Your task to perform on an android device: Open Google Maps and go to "Timeline" Image 0: 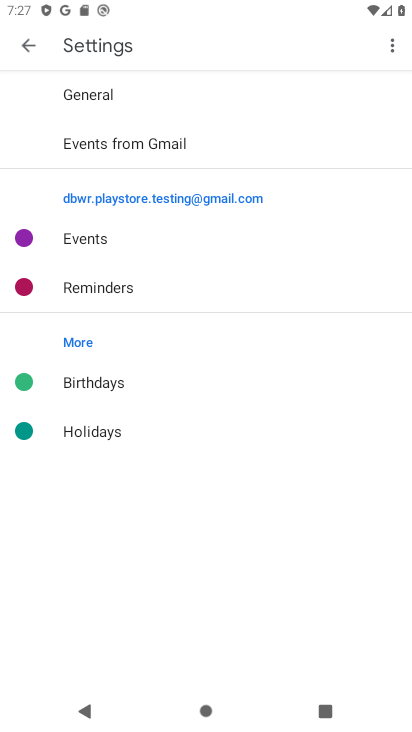
Step 0: press home button
Your task to perform on an android device: Open Google Maps and go to "Timeline" Image 1: 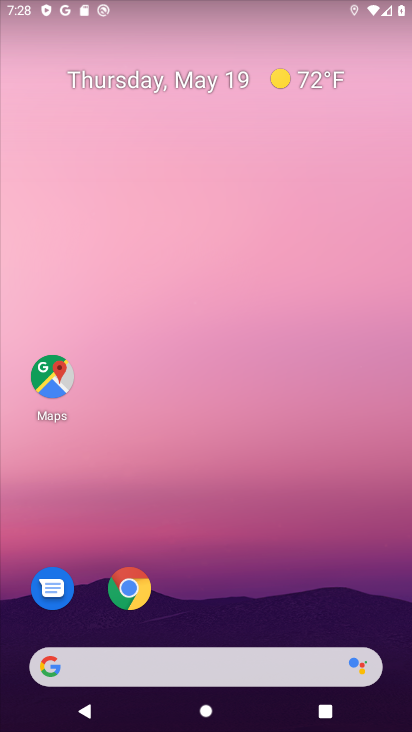
Step 1: drag from (325, 562) to (346, 54)
Your task to perform on an android device: Open Google Maps and go to "Timeline" Image 2: 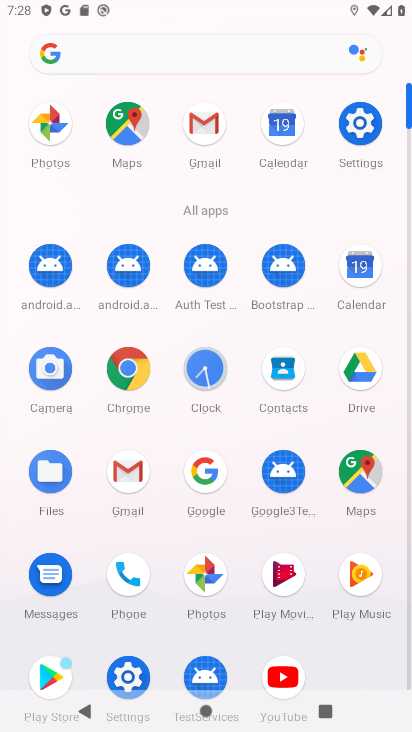
Step 2: click (351, 471)
Your task to perform on an android device: Open Google Maps and go to "Timeline" Image 3: 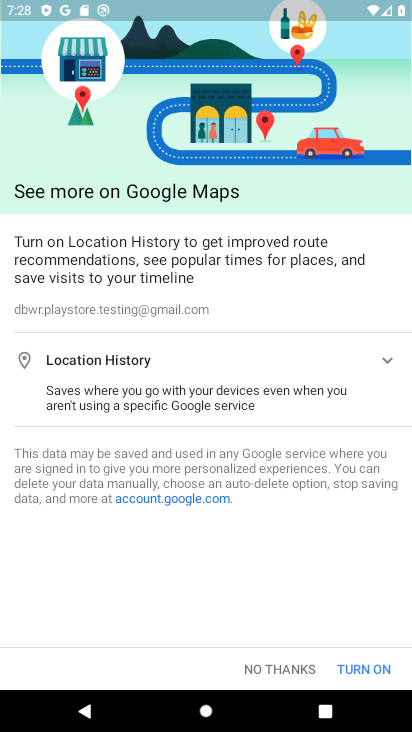
Step 3: click (360, 666)
Your task to perform on an android device: Open Google Maps and go to "Timeline" Image 4: 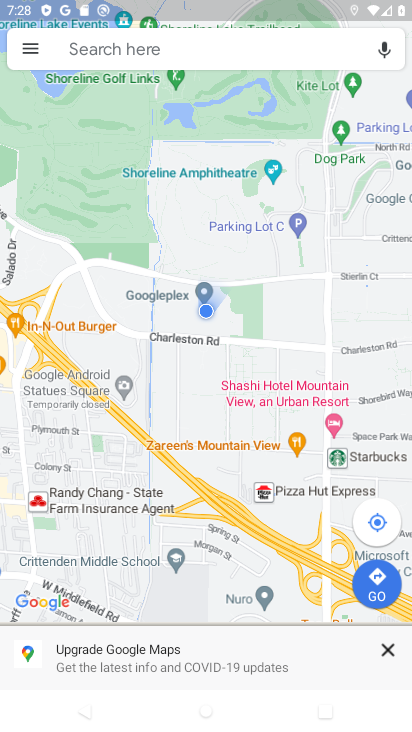
Step 4: click (23, 46)
Your task to perform on an android device: Open Google Maps and go to "Timeline" Image 5: 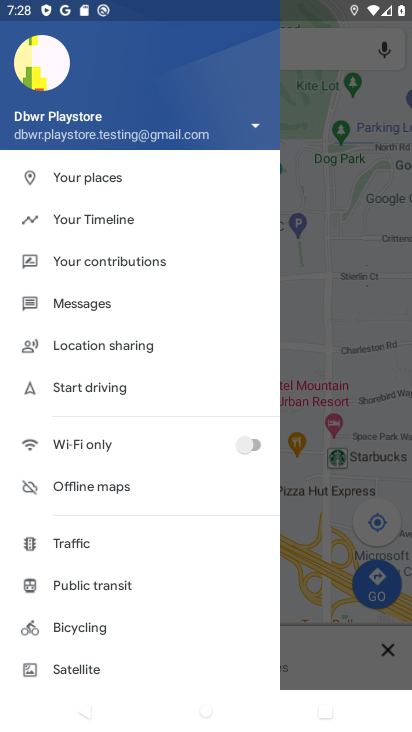
Step 5: click (96, 214)
Your task to perform on an android device: Open Google Maps and go to "Timeline" Image 6: 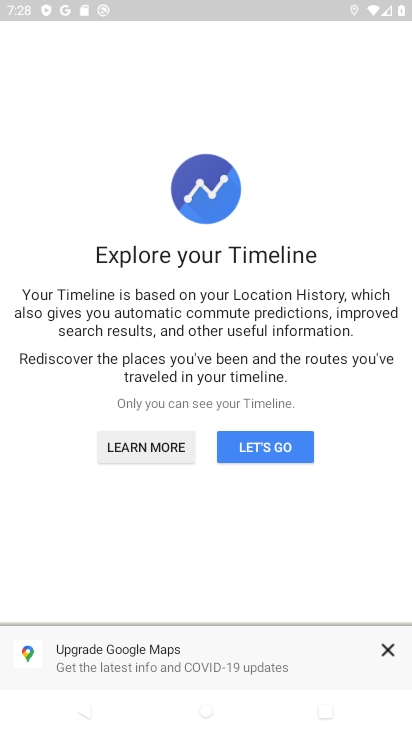
Step 6: click (308, 455)
Your task to perform on an android device: Open Google Maps and go to "Timeline" Image 7: 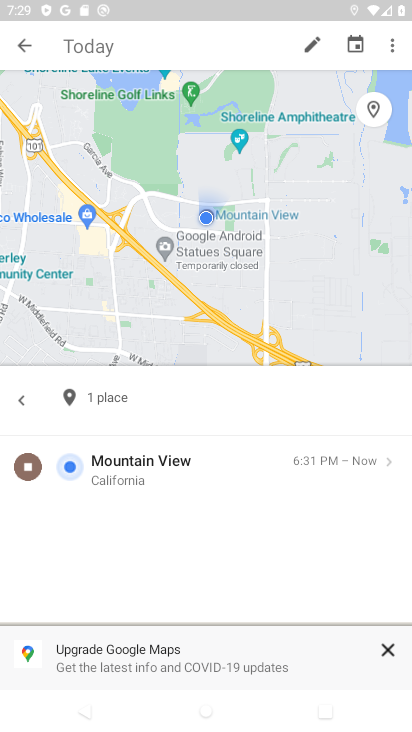
Step 7: task complete